Your task to perform on an android device: clear history in the chrome app Image 0: 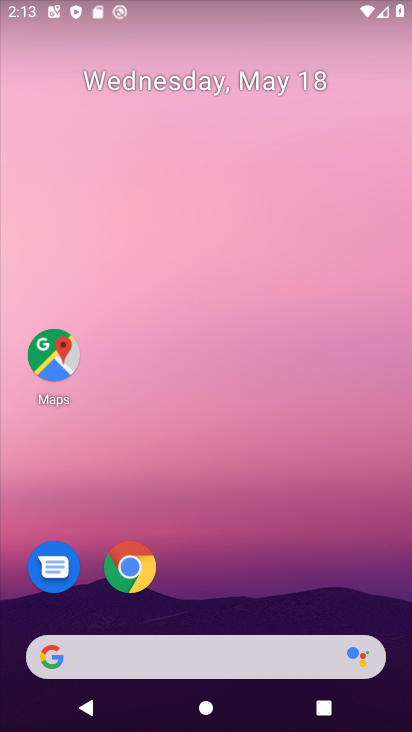
Step 0: click (126, 561)
Your task to perform on an android device: clear history in the chrome app Image 1: 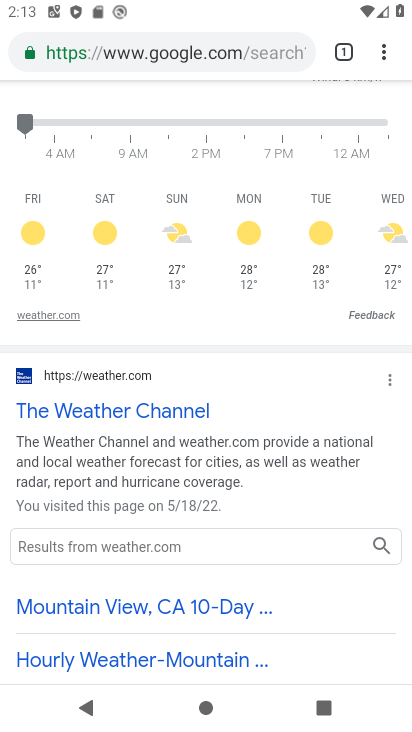
Step 1: drag from (384, 46) to (227, 594)
Your task to perform on an android device: clear history in the chrome app Image 2: 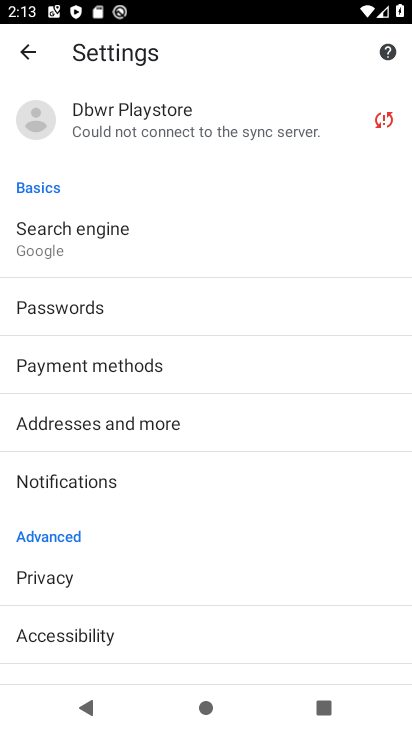
Step 2: click (20, 47)
Your task to perform on an android device: clear history in the chrome app Image 3: 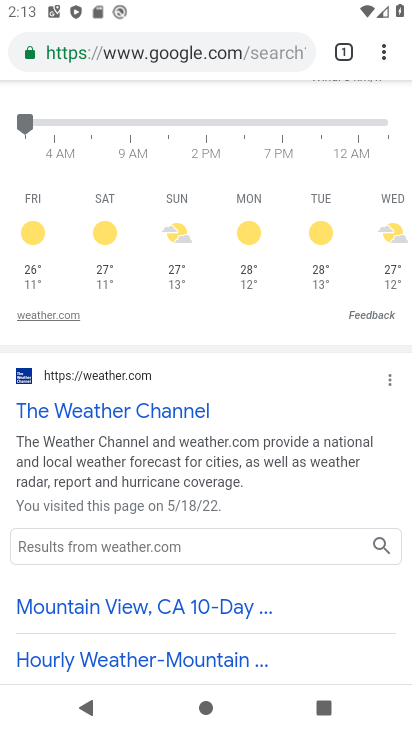
Step 3: drag from (383, 50) to (227, 300)
Your task to perform on an android device: clear history in the chrome app Image 4: 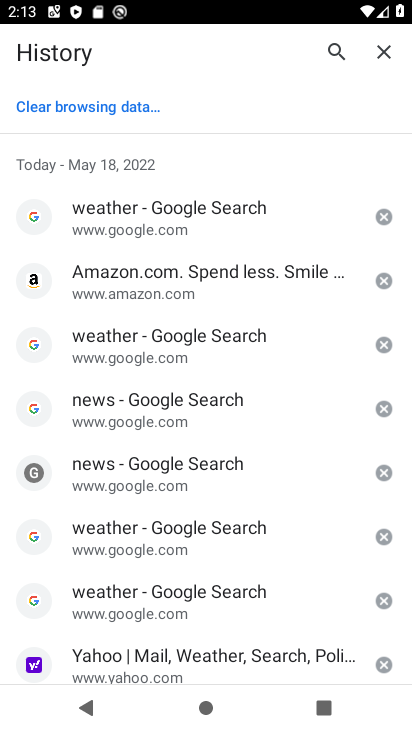
Step 4: click (114, 97)
Your task to perform on an android device: clear history in the chrome app Image 5: 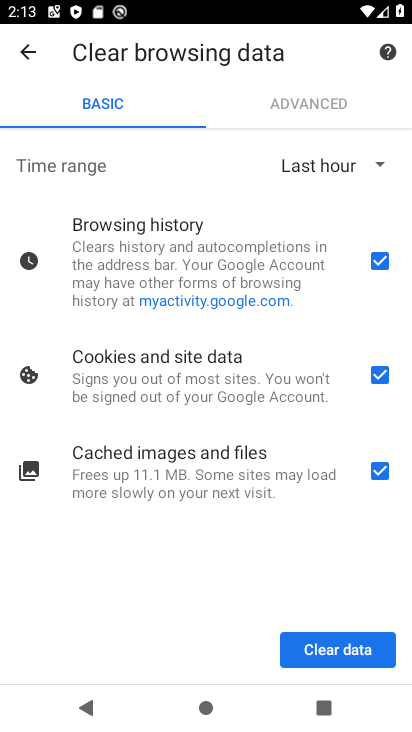
Step 5: click (357, 645)
Your task to perform on an android device: clear history in the chrome app Image 6: 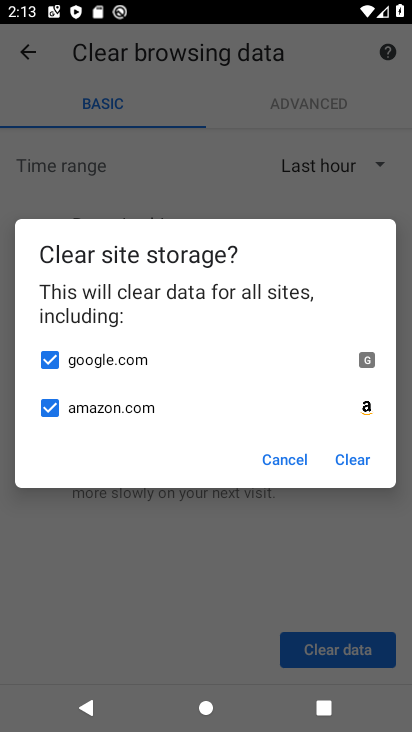
Step 6: click (349, 465)
Your task to perform on an android device: clear history in the chrome app Image 7: 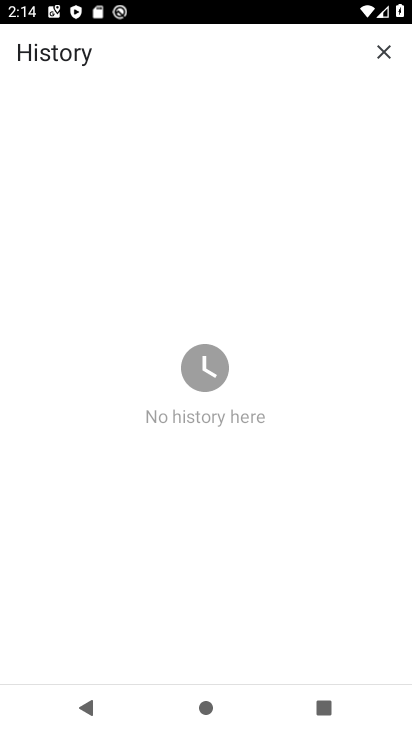
Step 7: task complete